Your task to perform on an android device: turn off location history Image 0: 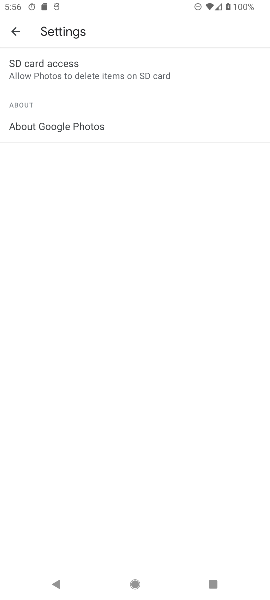
Step 0: click (8, 27)
Your task to perform on an android device: turn off location history Image 1: 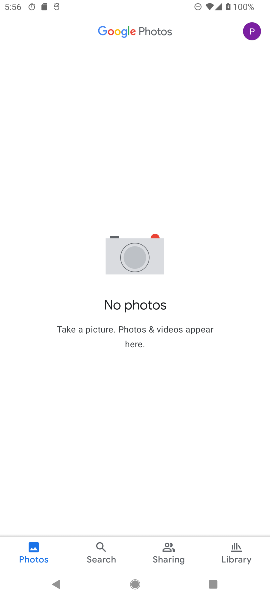
Step 1: press back button
Your task to perform on an android device: turn off location history Image 2: 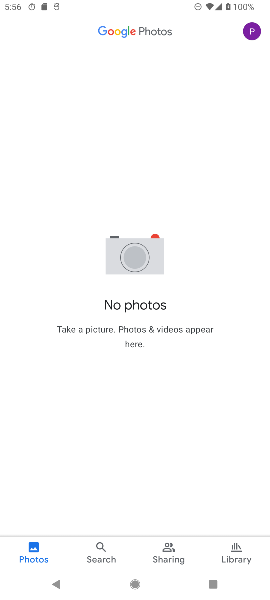
Step 2: press back button
Your task to perform on an android device: turn off location history Image 3: 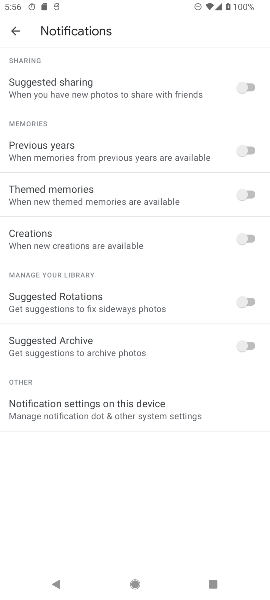
Step 3: press back button
Your task to perform on an android device: turn off location history Image 4: 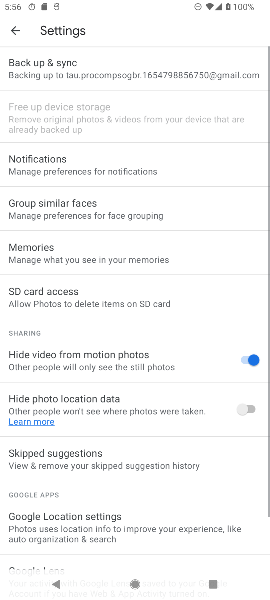
Step 4: press back button
Your task to perform on an android device: turn off location history Image 5: 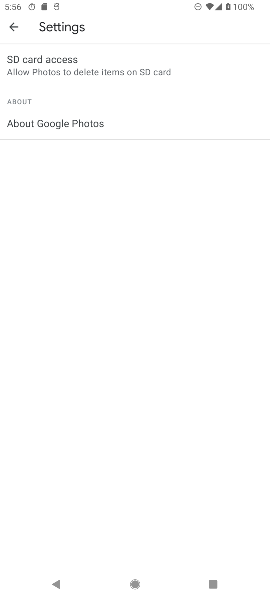
Step 5: click (11, 28)
Your task to perform on an android device: turn off location history Image 6: 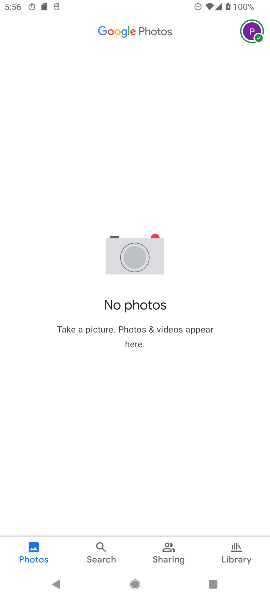
Step 6: press back button
Your task to perform on an android device: turn off location history Image 7: 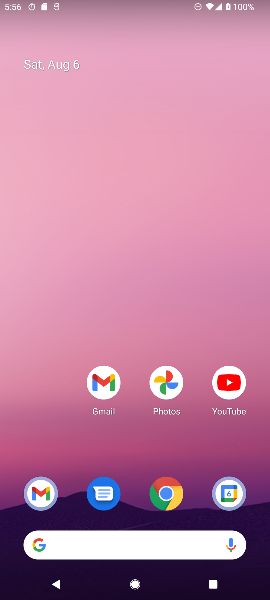
Step 7: drag from (152, 506) to (138, 192)
Your task to perform on an android device: turn off location history Image 8: 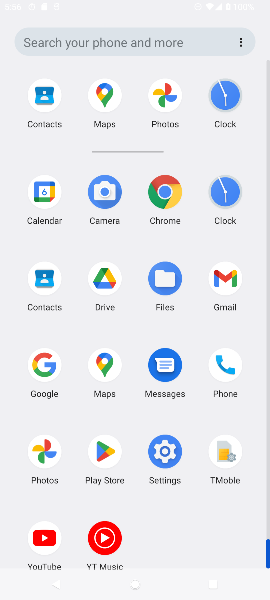
Step 8: drag from (130, 338) to (85, 135)
Your task to perform on an android device: turn off location history Image 9: 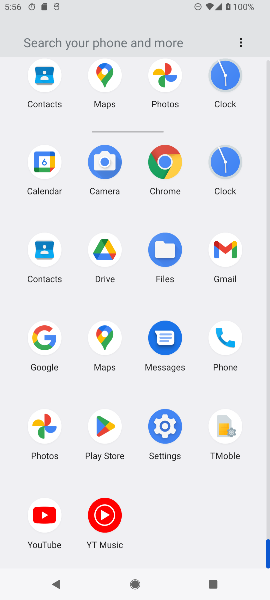
Step 9: drag from (160, 415) to (152, 374)
Your task to perform on an android device: turn off location history Image 10: 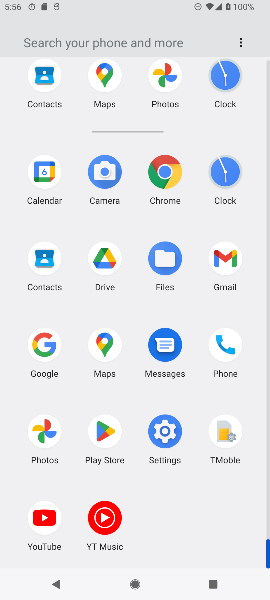
Step 10: click (155, 431)
Your task to perform on an android device: turn off location history Image 11: 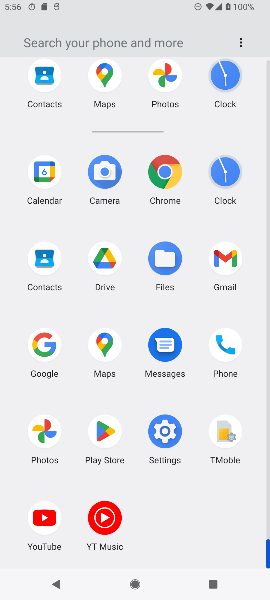
Step 11: click (155, 431)
Your task to perform on an android device: turn off location history Image 12: 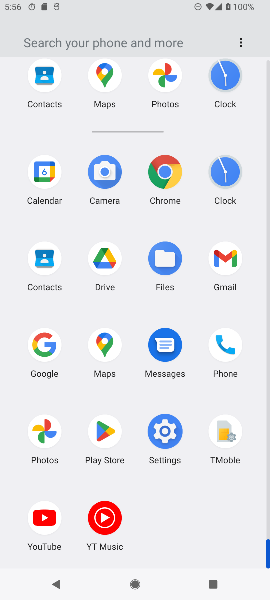
Step 12: click (155, 429)
Your task to perform on an android device: turn off location history Image 13: 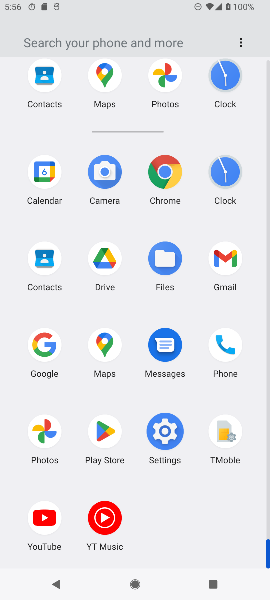
Step 13: click (155, 429)
Your task to perform on an android device: turn off location history Image 14: 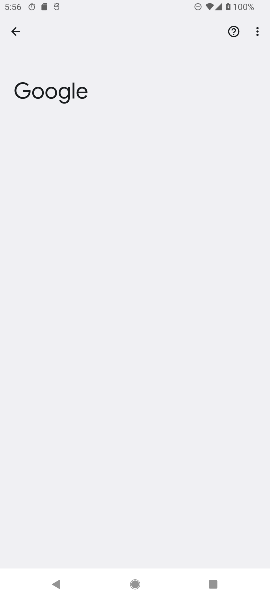
Step 14: click (18, 27)
Your task to perform on an android device: turn off location history Image 15: 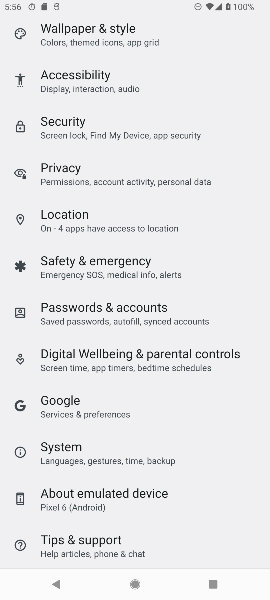
Step 15: click (77, 219)
Your task to perform on an android device: turn off location history Image 16: 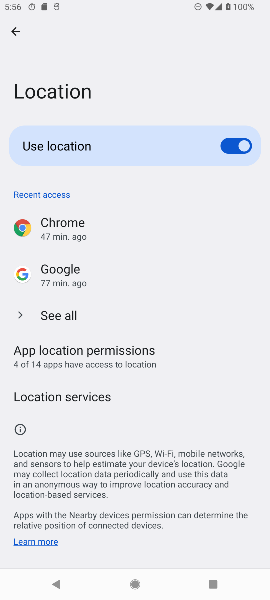
Step 16: click (72, 393)
Your task to perform on an android device: turn off location history Image 17: 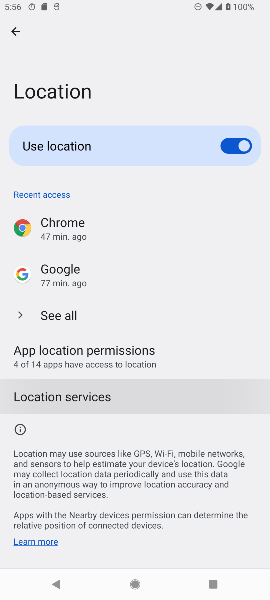
Step 17: click (76, 401)
Your task to perform on an android device: turn off location history Image 18: 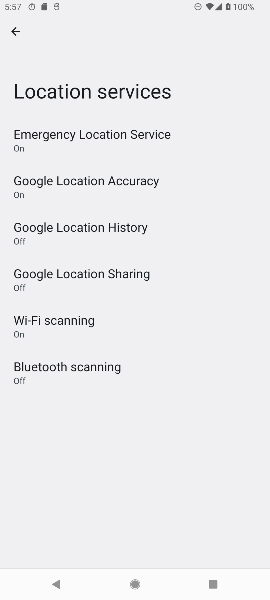
Step 18: click (84, 223)
Your task to perform on an android device: turn off location history Image 19: 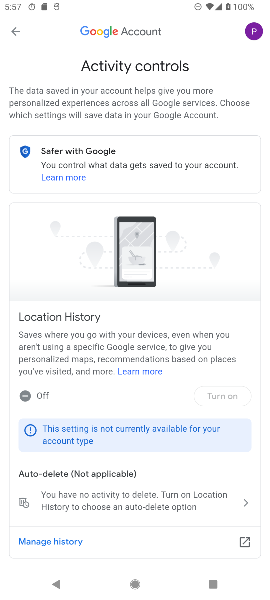
Step 19: task complete